Your task to perform on an android device: turn off notifications settings in the gmail app Image 0: 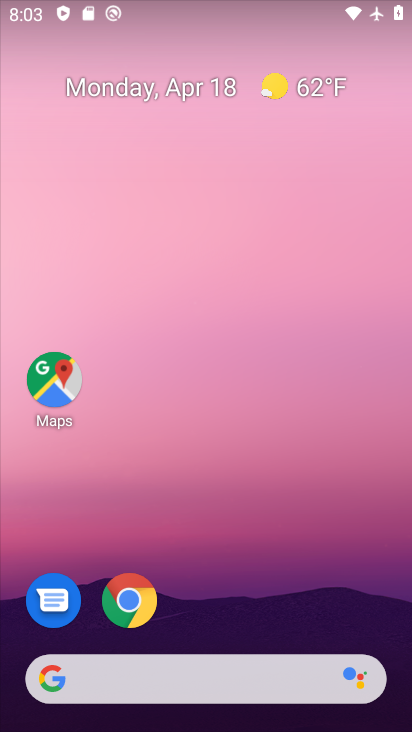
Step 0: drag from (219, 655) to (201, 3)
Your task to perform on an android device: turn off notifications settings in the gmail app Image 1: 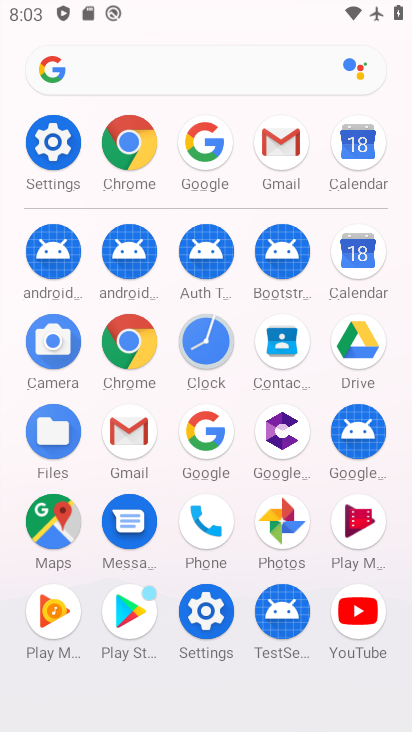
Step 1: click (118, 437)
Your task to perform on an android device: turn off notifications settings in the gmail app Image 2: 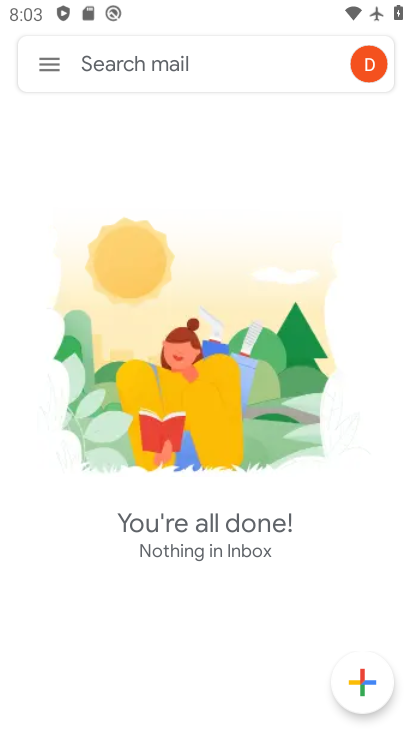
Step 2: click (57, 65)
Your task to perform on an android device: turn off notifications settings in the gmail app Image 3: 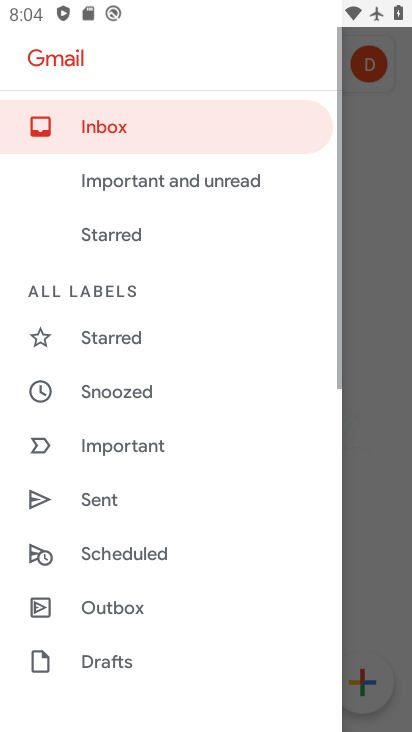
Step 3: drag from (137, 581) to (69, 97)
Your task to perform on an android device: turn off notifications settings in the gmail app Image 4: 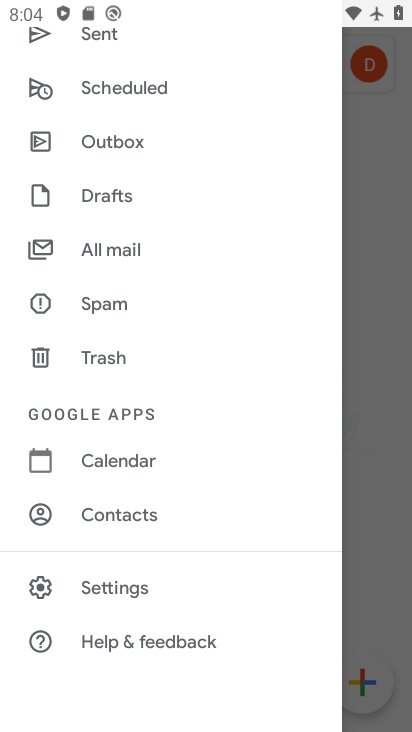
Step 4: click (97, 579)
Your task to perform on an android device: turn off notifications settings in the gmail app Image 5: 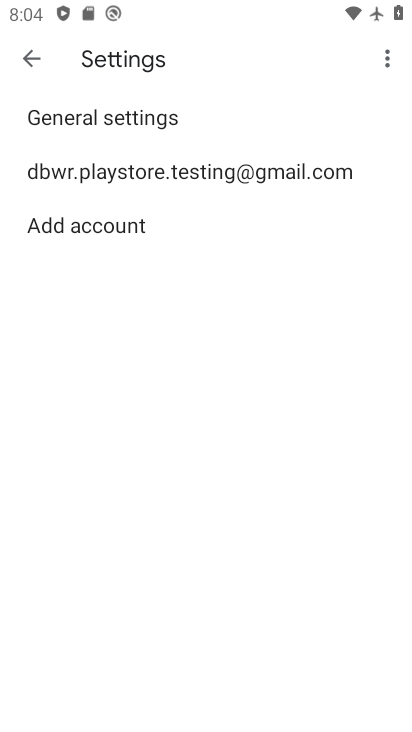
Step 5: click (98, 130)
Your task to perform on an android device: turn off notifications settings in the gmail app Image 6: 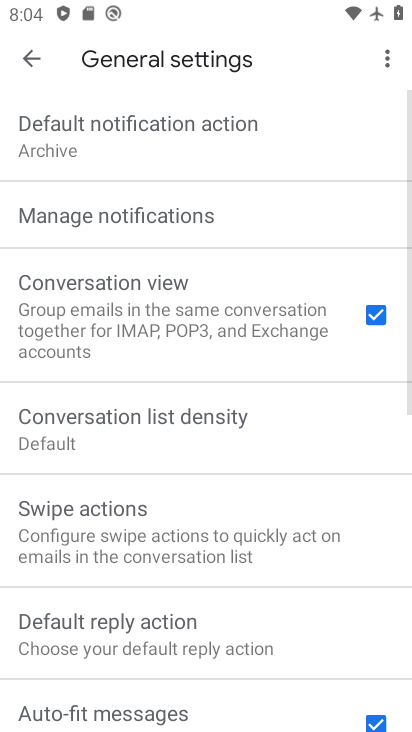
Step 6: click (113, 231)
Your task to perform on an android device: turn off notifications settings in the gmail app Image 7: 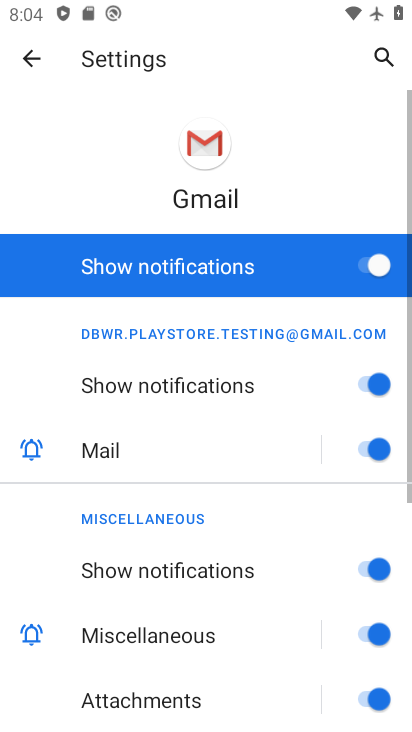
Step 7: click (366, 266)
Your task to perform on an android device: turn off notifications settings in the gmail app Image 8: 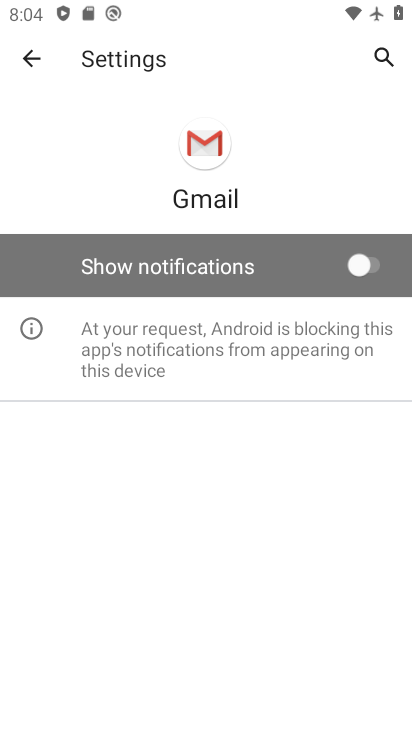
Step 8: task complete